Your task to perform on an android device: When is my next meeting? Image 0: 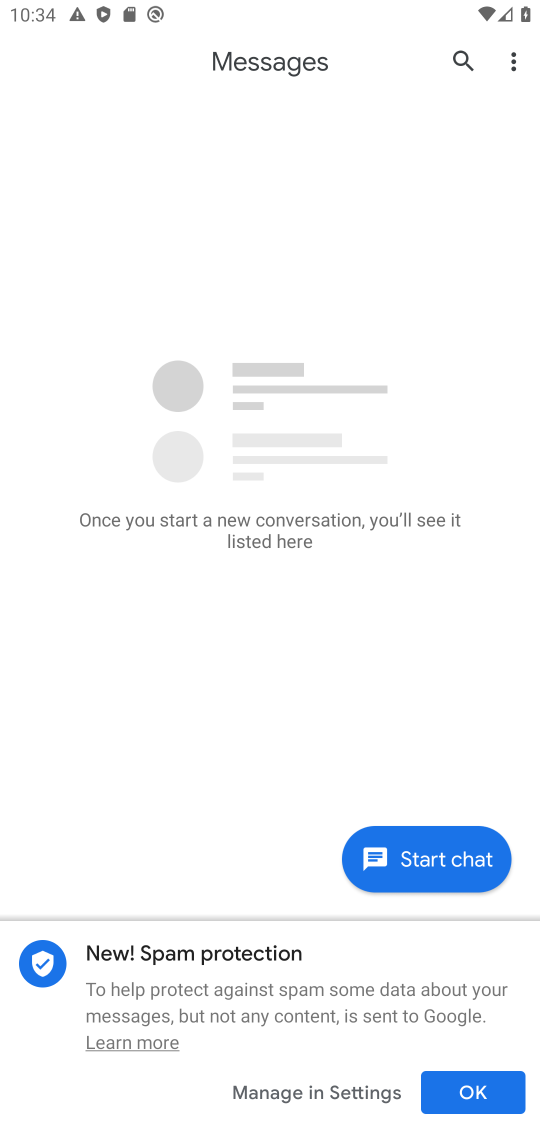
Step 0: press back button
Your task to perform on an android device: When is my next meeting? Image 1: 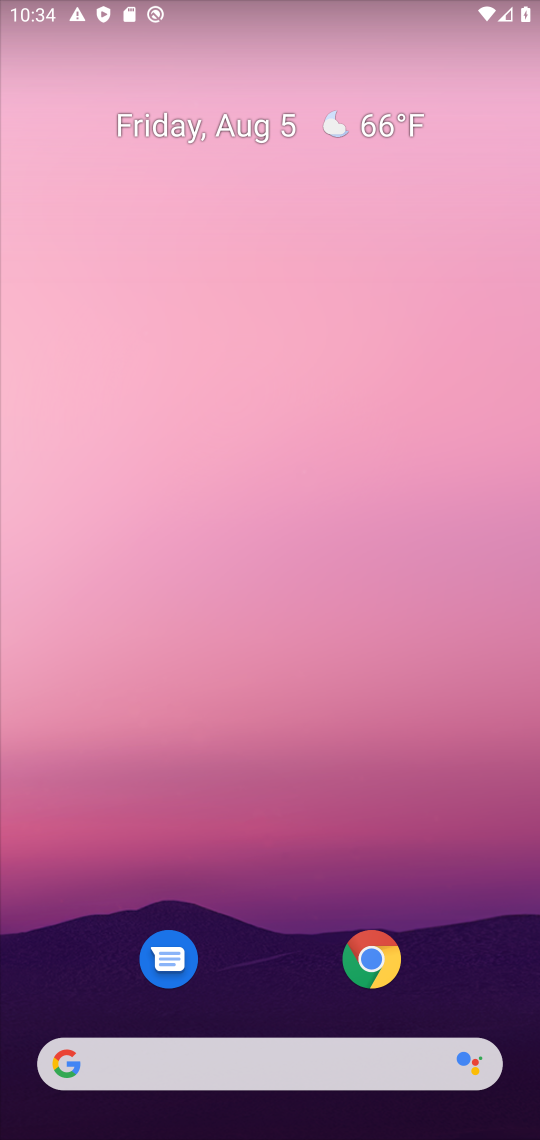
Step 1: drag from (246, 1007) to (199, 117)
Your task to perform on an android device: When is my next meeting? Image 2: 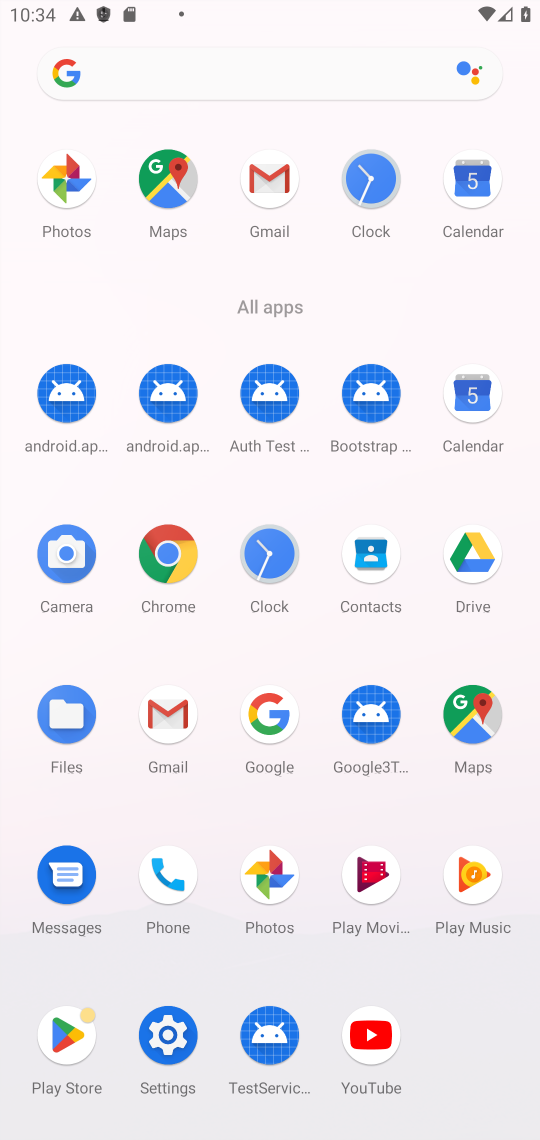
Step 2: click (466, 420)
Your task to perform on an android device: When is my next meeting? Image 3: 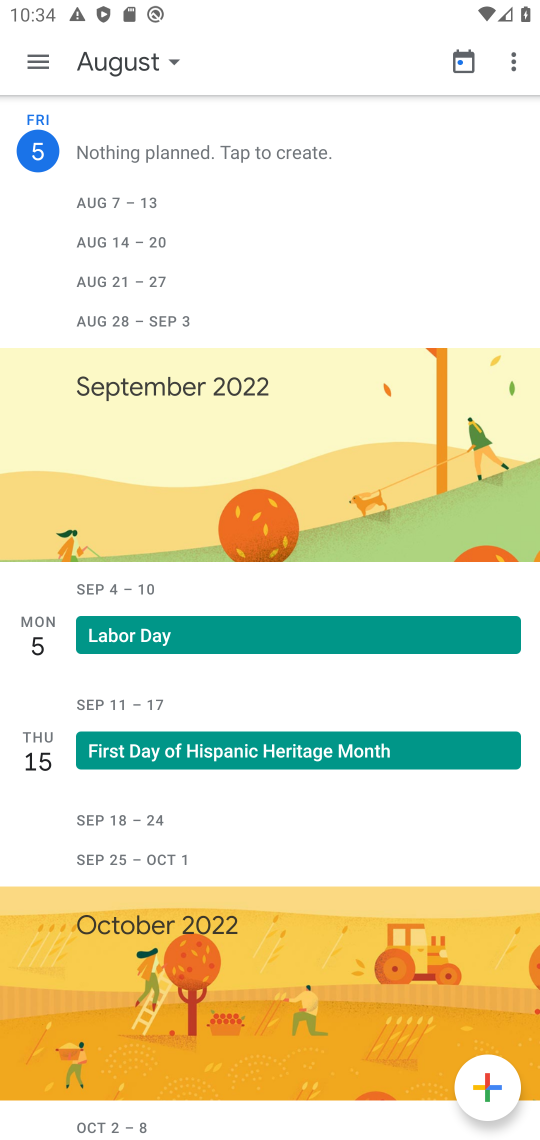
Step 3: click (39, 58)
Your task to perform on an android device: When is my next meeting? Image 4: 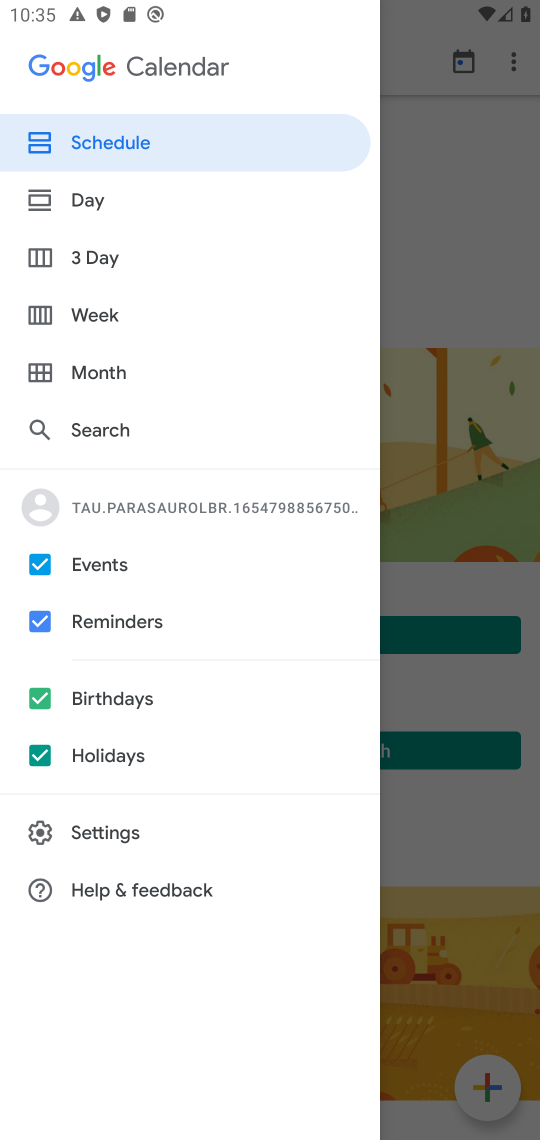
Step 4: click (107, 146)
Your task to perform on an android device: When is my next meeting? Image 5: 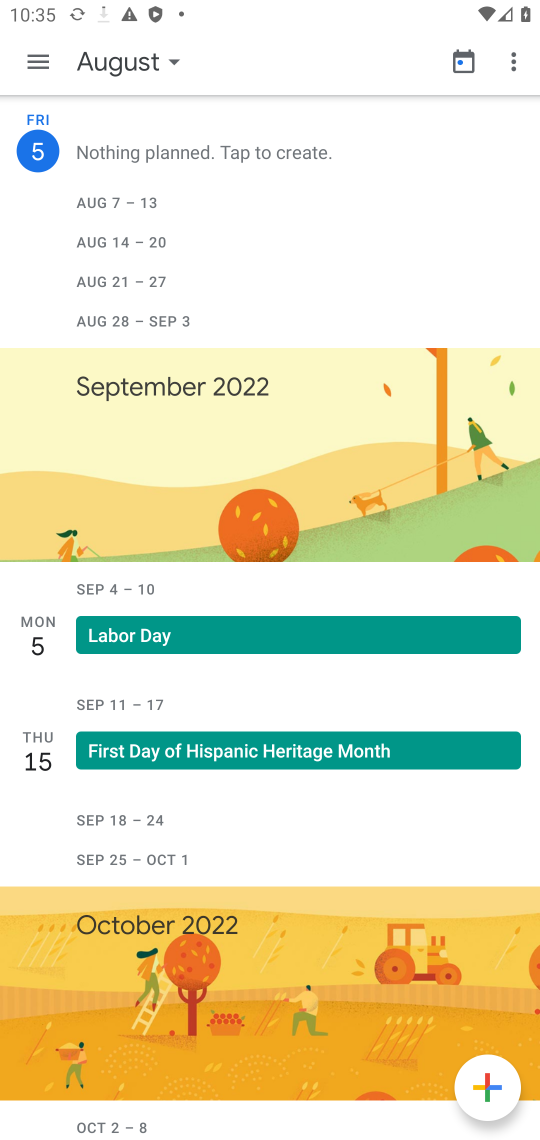
Step 5: task complete